Your task to perform on an android device: allow notifications from all sites in the chrome app Image 0: 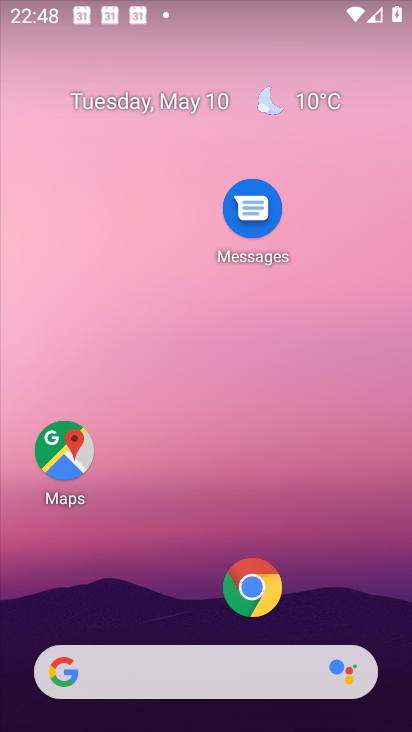
Step 0: drag from (189, 582) to (233, 220)
Your task to perform on an android device: allow notifications from all sites in the chrome app Image 1: 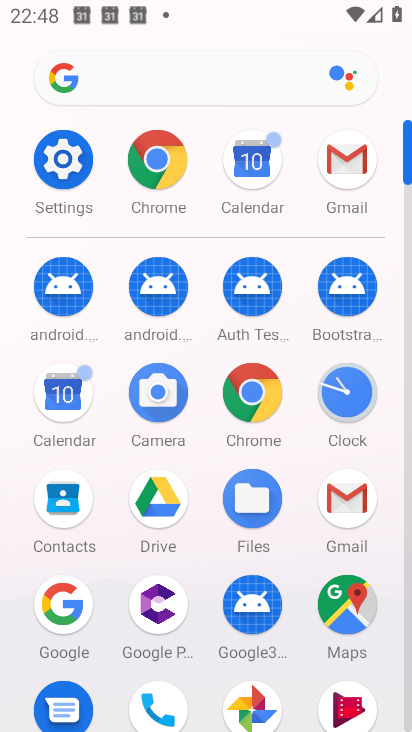
Step 1: click (231, 424)
Your task to perform on an android device: allow notifications from all sites in the chrome app Image 2: 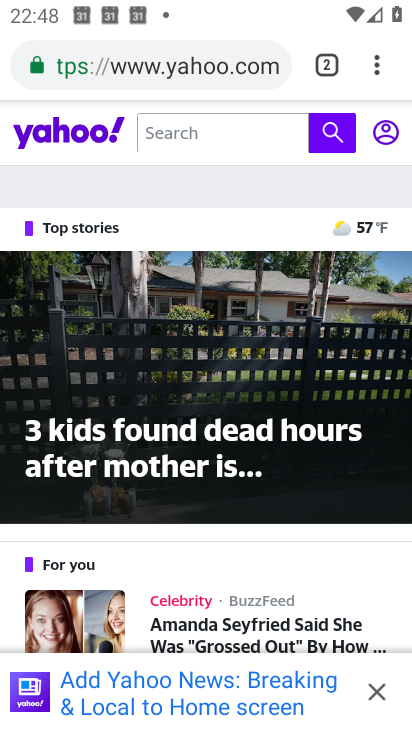
Step 2: click (374, 64)
Your task to perform on an android device: allow notifications from all sites in the chrome app Image 3: 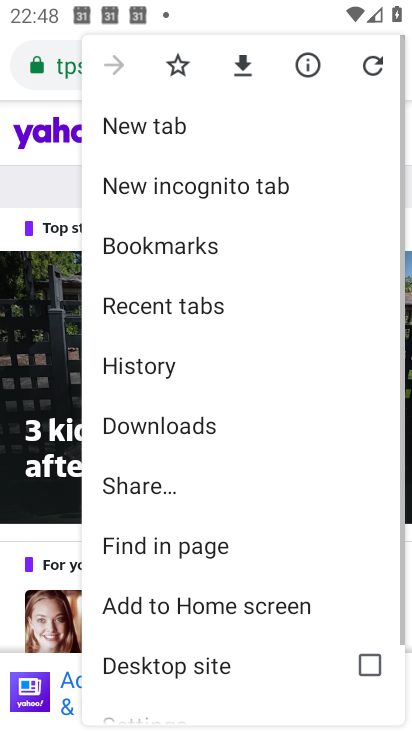
Step 3: drag from (157, 546) to (205, 180)
Your task to perform on an android device: allow notifications from all sites in the chrome app Image 4: 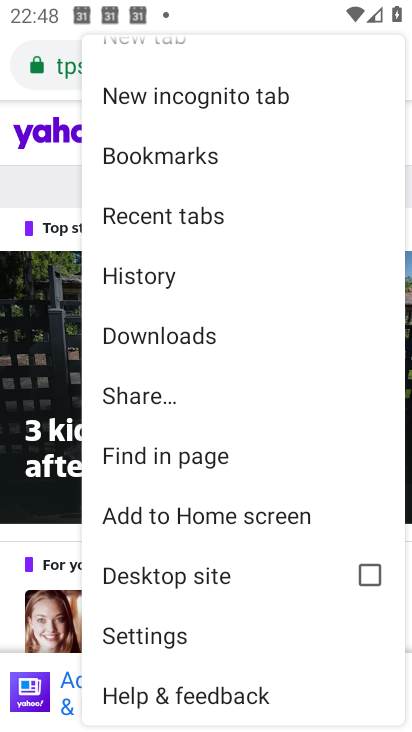
Step 4: click (166, 635)
Your task to perform on an android device: allow notifications from all sites in the chrome app Image 5: 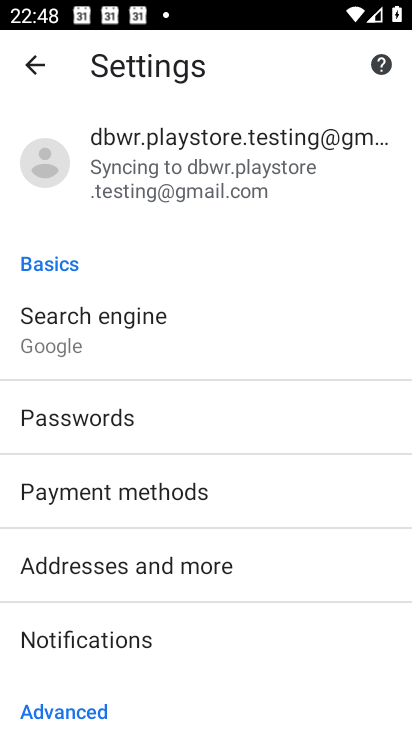
Step 5: drag from (128, 617) to (197, 284)
Your task to perform on an android device: allow notifications from all sites in the chrome app Image 6: 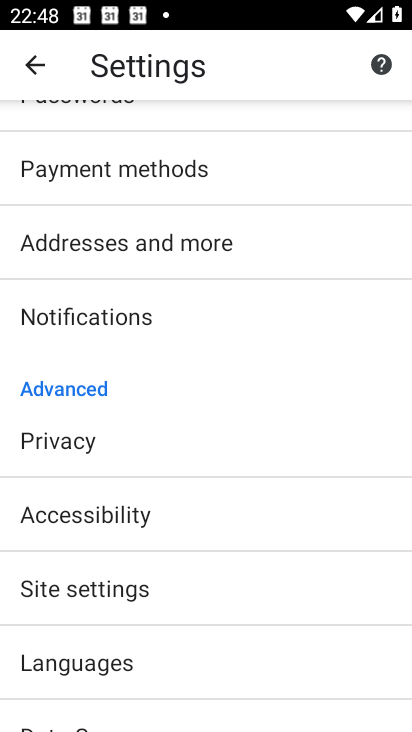
Step 6: click (125, 332)
Your task to perform on an android device: allow notifications from all sites in the chrome app Image 7: 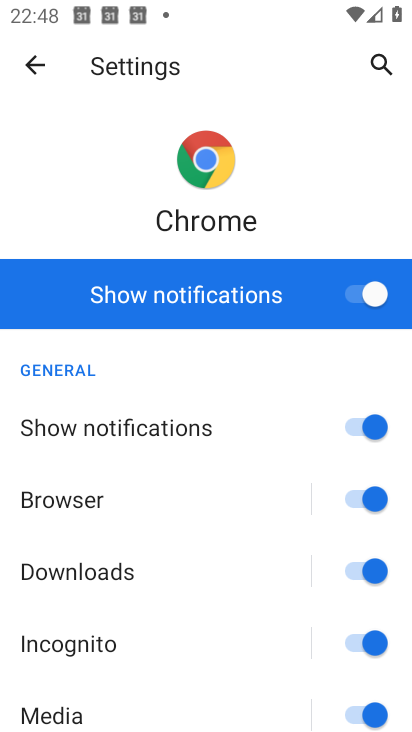
Step 7: task complete